Your task to perform on an android device: change text size in settings app Image 0: 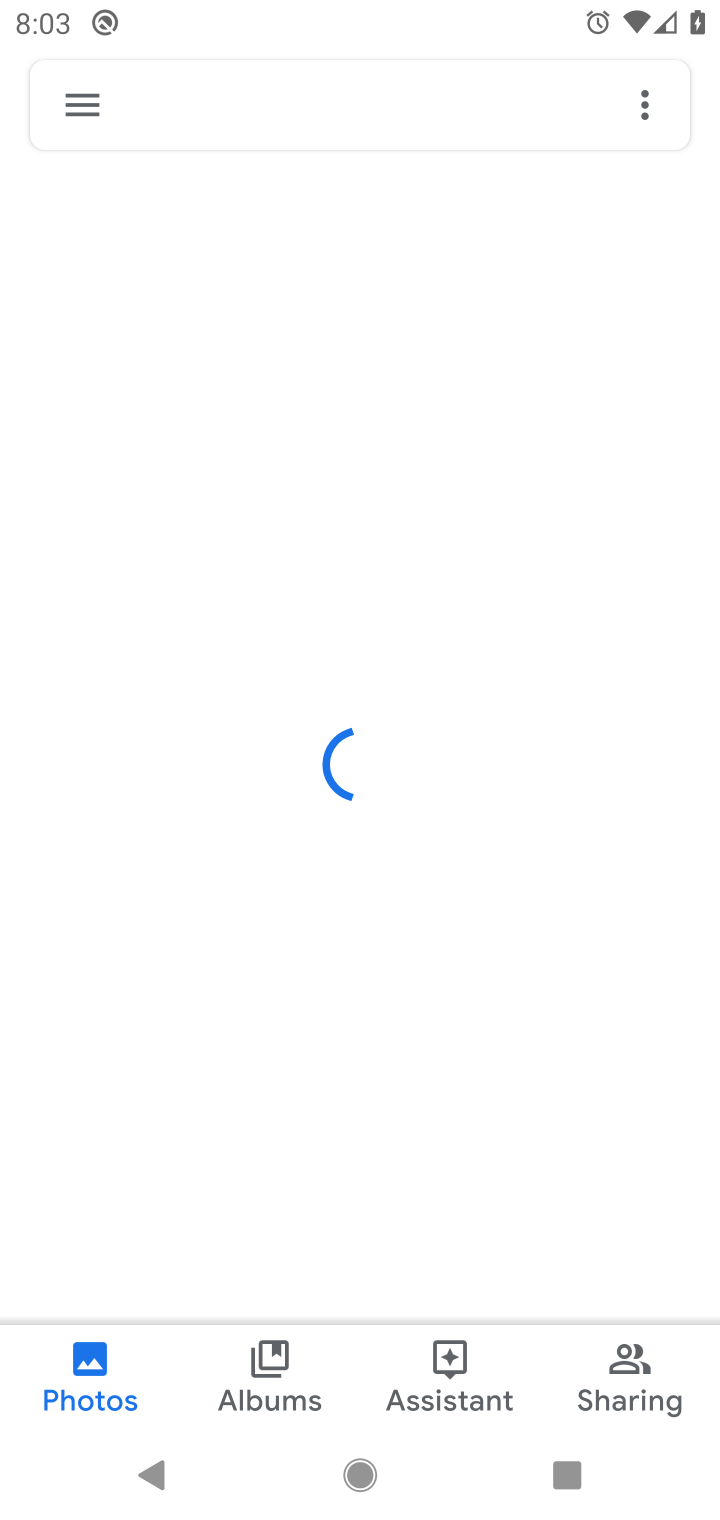
Step 0: press home button
Your task to perform on an android device: change text size in settings app Image 1: 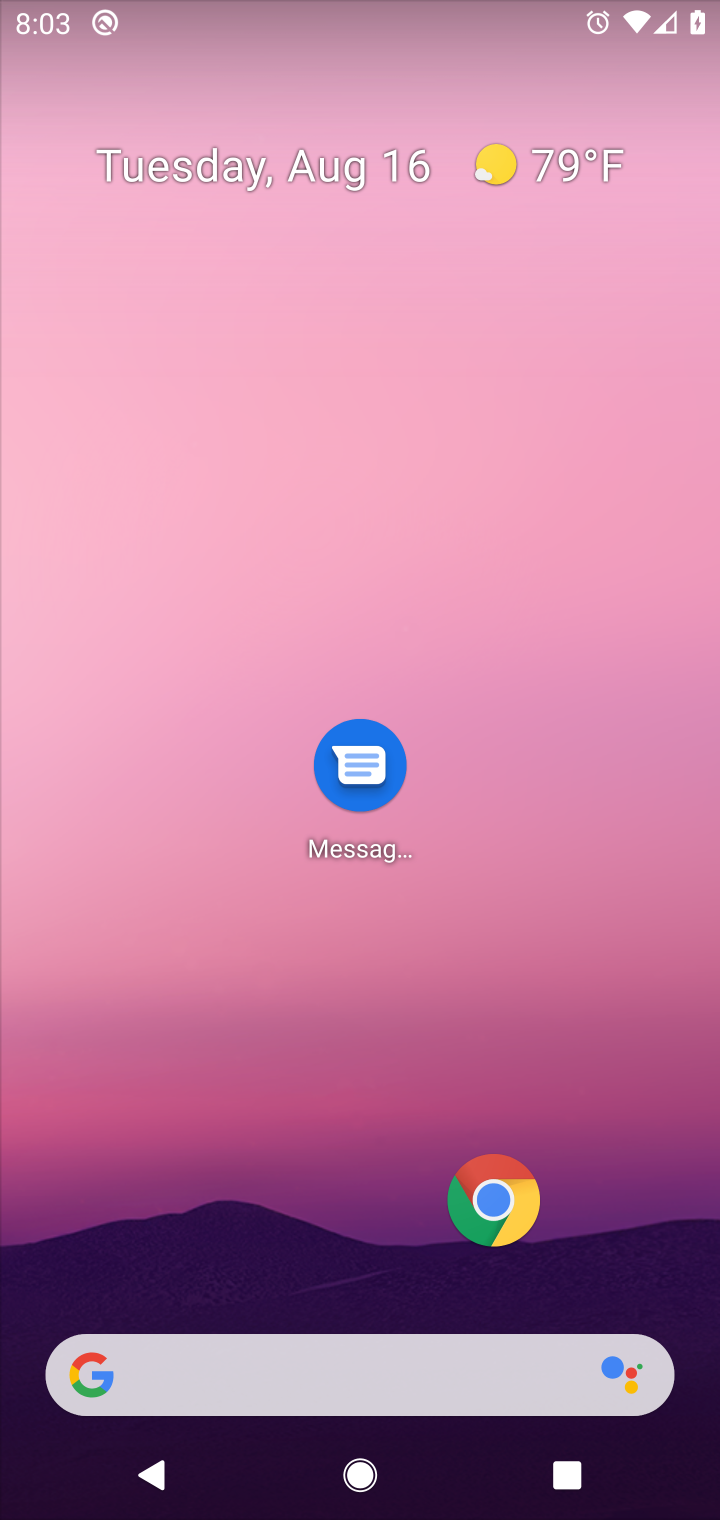
Step 1: click (394, 325)
Your task to perform on an android device: change text size in settings app Image 2: 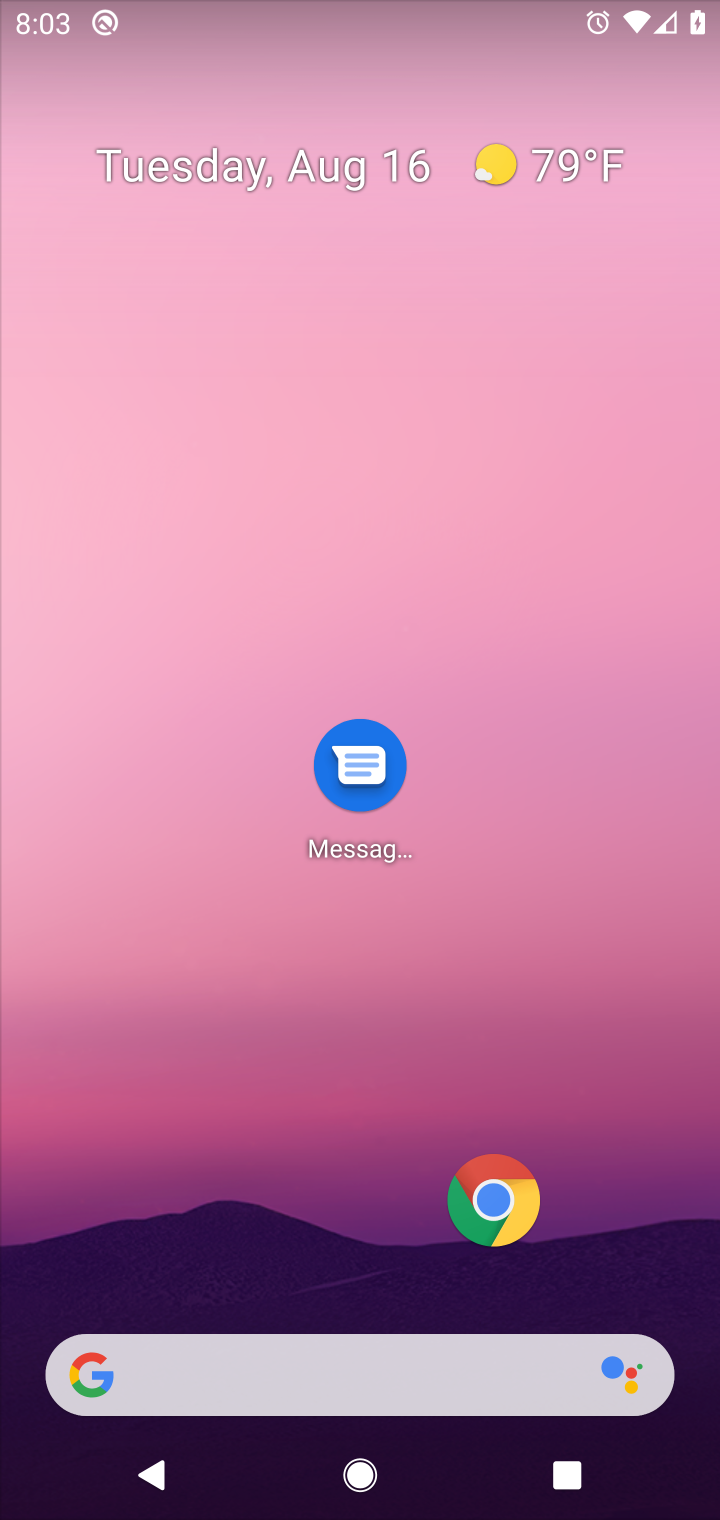
Step 2: task complete